Your task to perform on an android device: Open the map Image 0: 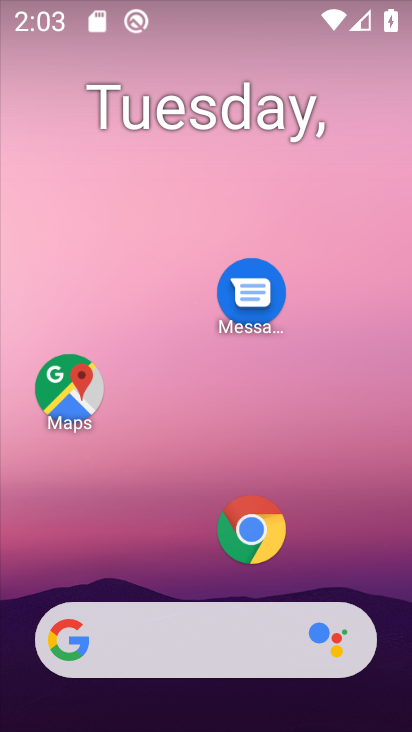
Step 0: click (69, 388)
Your task to perform on an android device: Open the map Image 1: 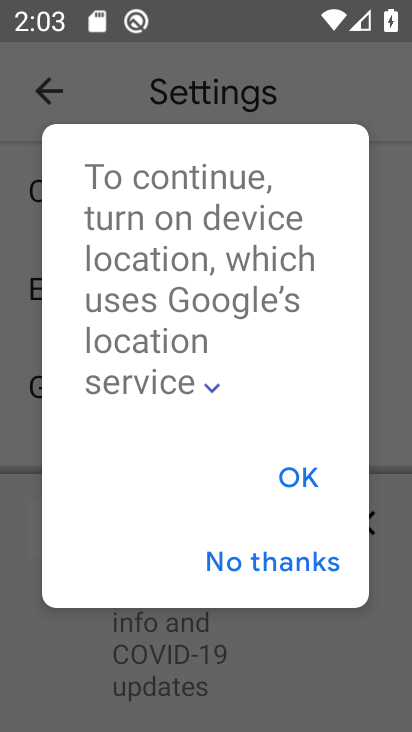
Step 1: press home button
Your task to perform on an android device: Open the map Image 2: 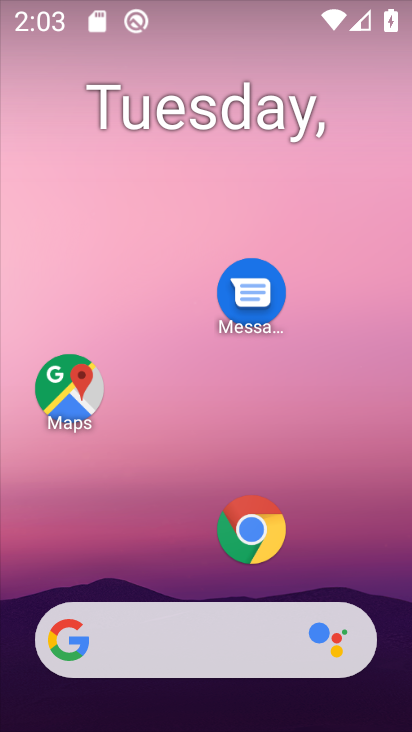
Step 2: click (65, 391)
Your task to perform on an android device: Open the map Image 3: 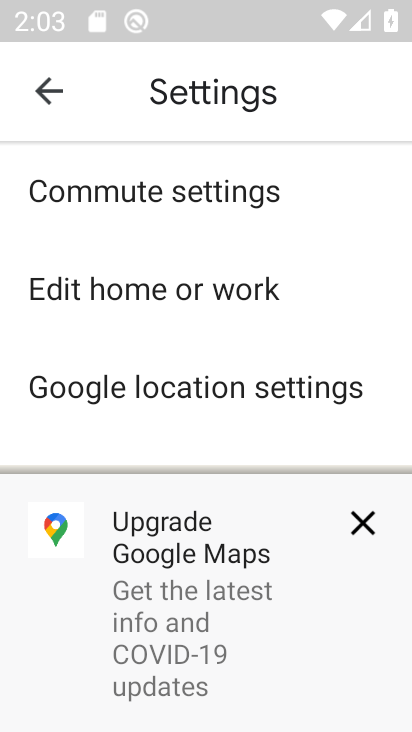
Step 3: task complete